Your task to perform on an android device: toggle show notifications on the lock screen Image 0: 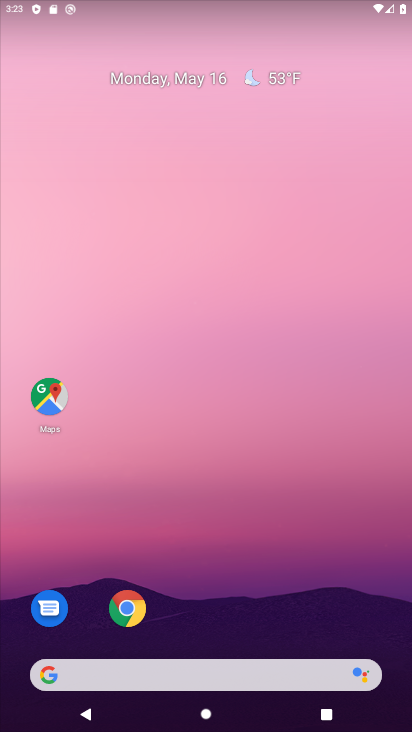
Step 0: drag from (266, 601) to (271, 27)
Your task to perform on an android device: toggle show notifications on the lock screen Image 1: 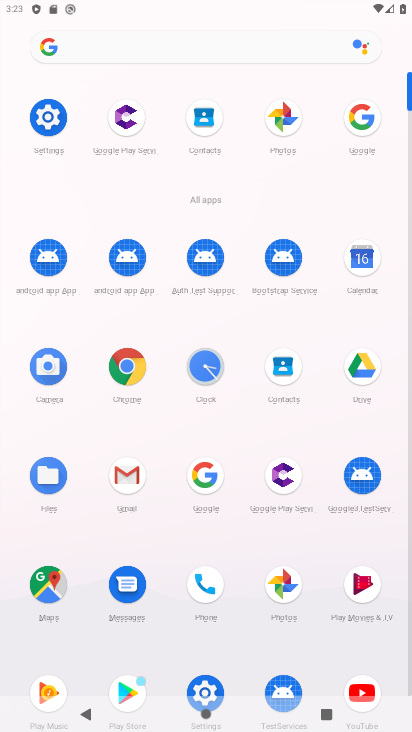
Step 1: drag from (241, 440) to (241, 298)
Your task to perform on an android device: toggle show notifications on the lock screen Image 2: 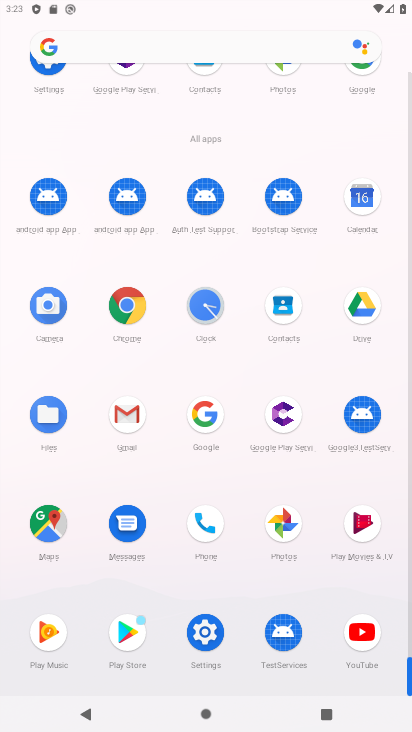
Step 2: click (203, 630)
Your task to perform on an android device: toggle show notifications on the lock screen Image 3: 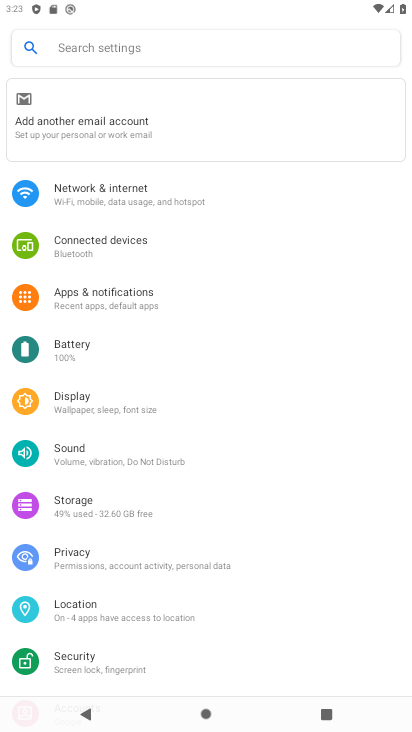
Step 3: click (121, 305)
Your task to perform on an android device: toggle show notifications on the lock screen Image 4: 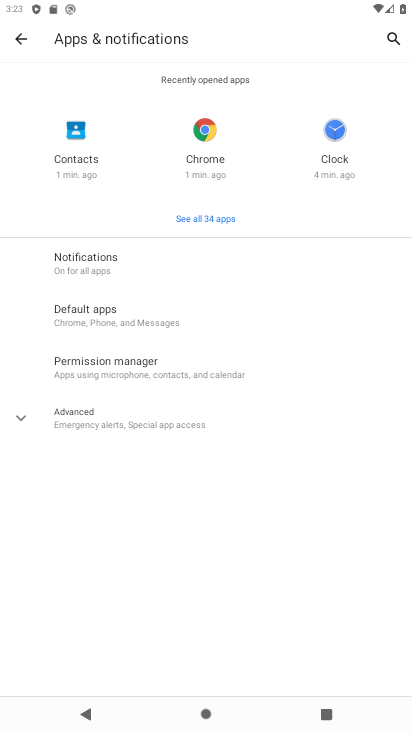
Step 4: click (84, 262)
Your task to perform on an android device: toggle show notifications on the lock screen Image 5: 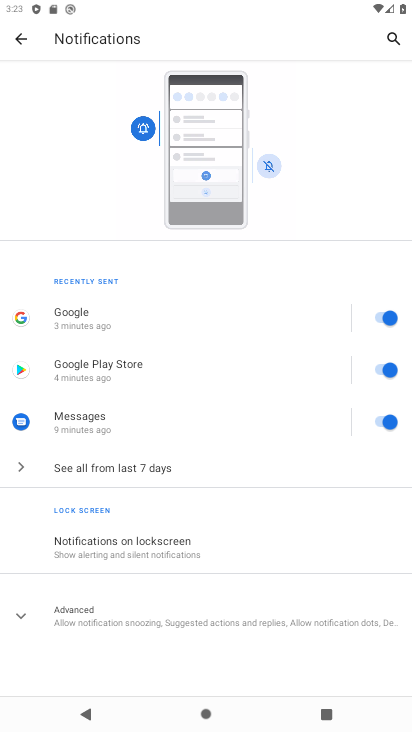
Step 5: click (138, 538)
Your task to perform on an android device: toggle show notifications on the lock screen Image 6: 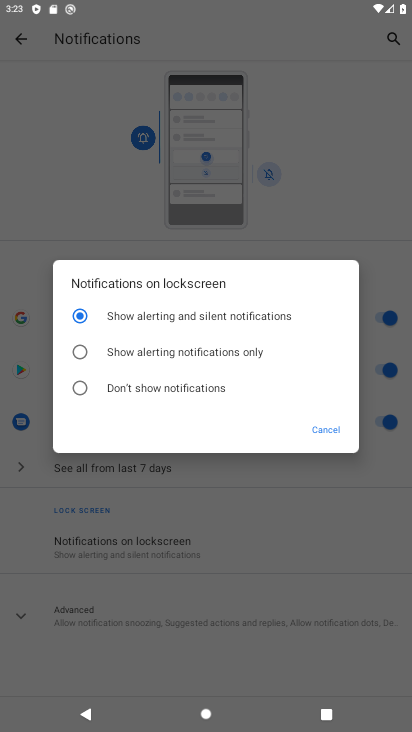
Step 6: click (77, 381)
Your task to perform on an android device: toggle show notifications on the lock screen Image 7: 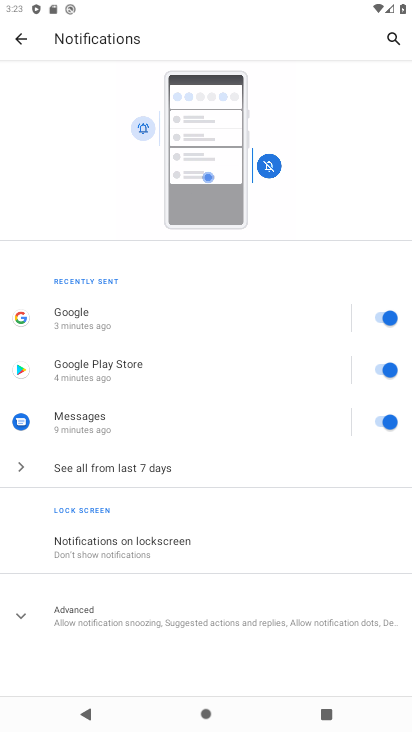
Step 7: task complete